Your task to perform on an android device: clear all cookies in the chrome app Image 0: 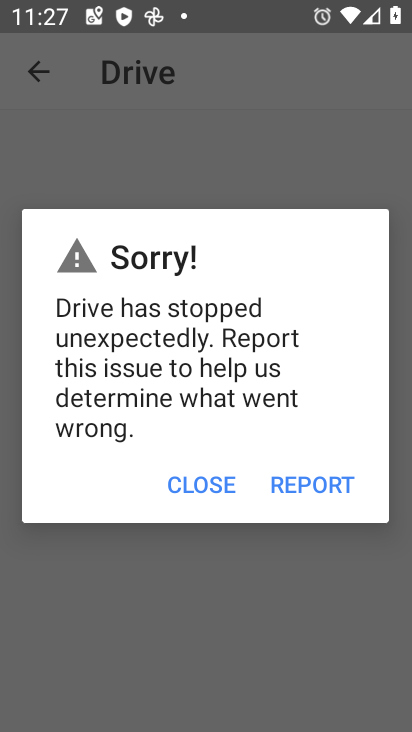
Step 0: press home button
Your task to perform on an android device: clear all cookies in the chrome app Image 1: 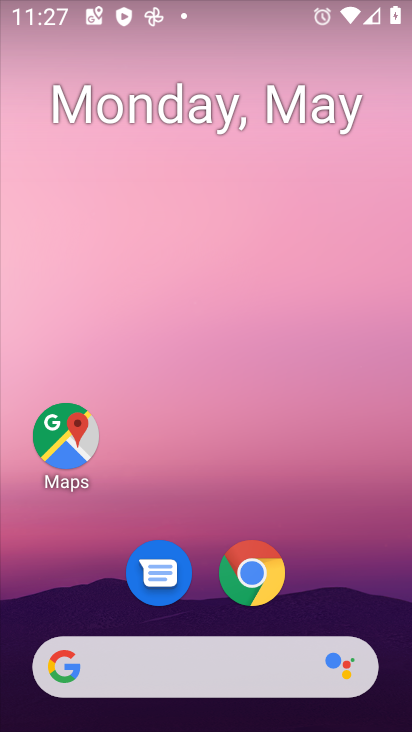
Step 1: click (275, 593)
Your task to perform on an android device: clear all cookies in the chrome app Image 2: 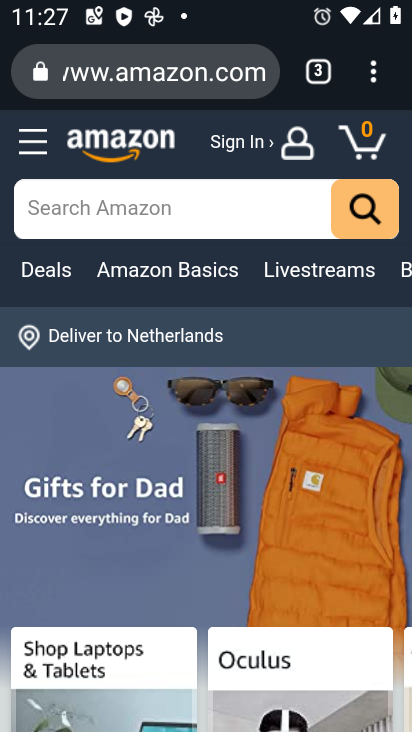
Step 2: click (360, 72)
Your task to perform on an android device: clear all cookies in the chrome app Image 3: 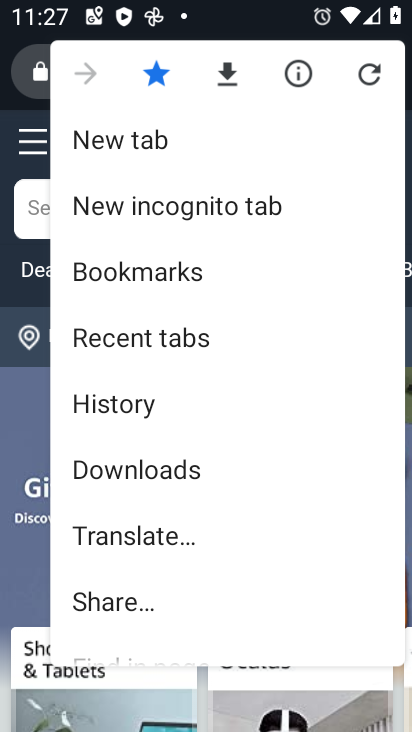
Step 3: drag from (162, 556) to (162, 248)
Your task to perform on an android device: clear all cookies in the chrome app Image 4: 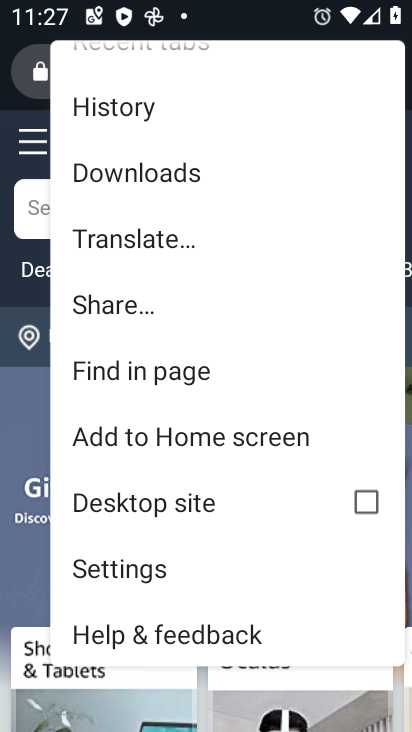
Step 4: click (145, 561)
Your task to perform on an android device: clear all cookies in the chrome app Image 5: 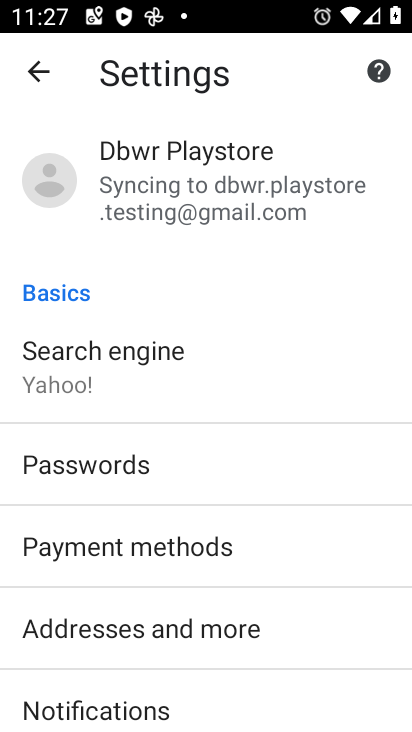
Step 5: task complete